Your task to perform on an android device: turn off picture-in-picture Image 0: 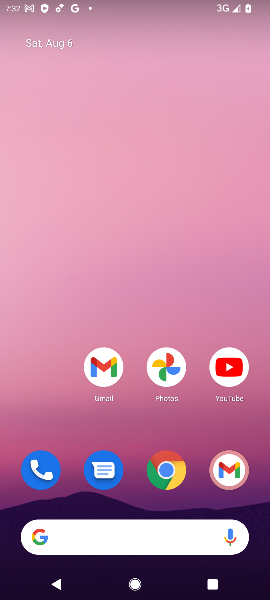
Step 0: drag from (138, 496) to (224, 91)
Your task to perform on an android device: turn off picture-in-picture Image 1: 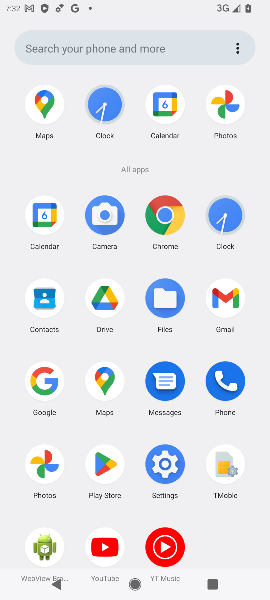
Step 1: click (172, 462)
Your task to perform on an android device: turn off picture-in-picture Image 2: 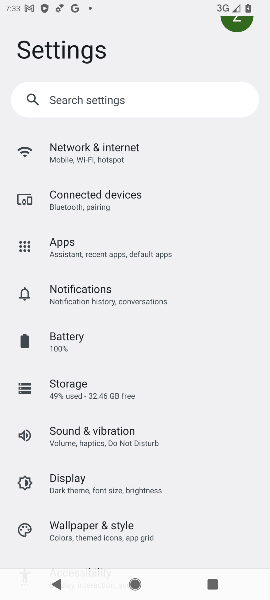
Step 2: drag from (107, 452) to (105, 148)
Your task to perform on an android device: turn off picture-in-picture Image 3: 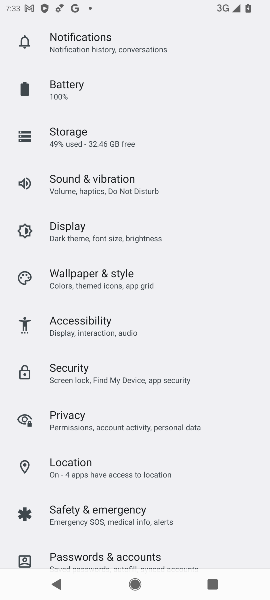
Step 3: click (122, 36)
Your task to perform on an android device: turn off picture-in-picture Image 4: 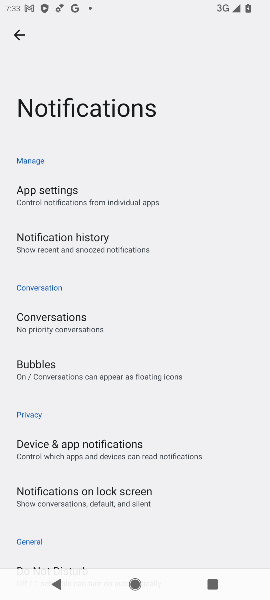
Step 4: task complete